Your task to perform on an android device: turn pop-ups off in chrome Image 0: 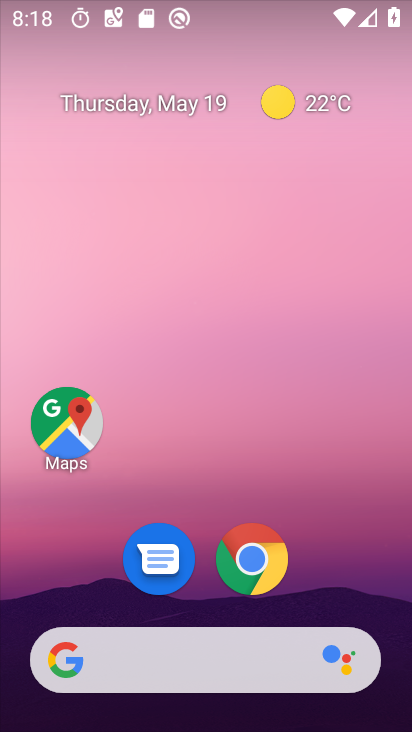
Step 0: click (252, 561)
Your task to perform on an android device: turn pop-ups off in chrome Image 1: 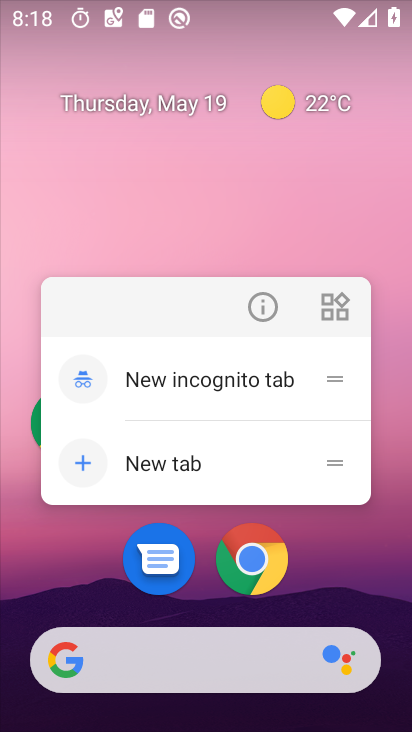
Step 1: click (252, 561)
Your task to perform on an android device: turn pop-ups off in chrome Image 2: 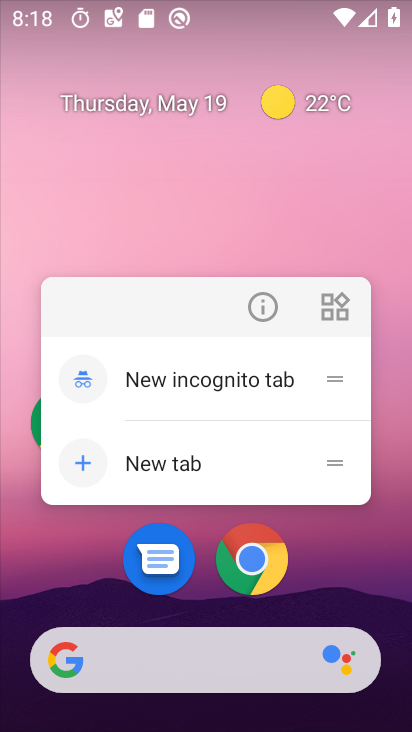
Step 2: click (245, 567)
Your task to perform on an android device: turn pop-ups off in chrome Image 3: 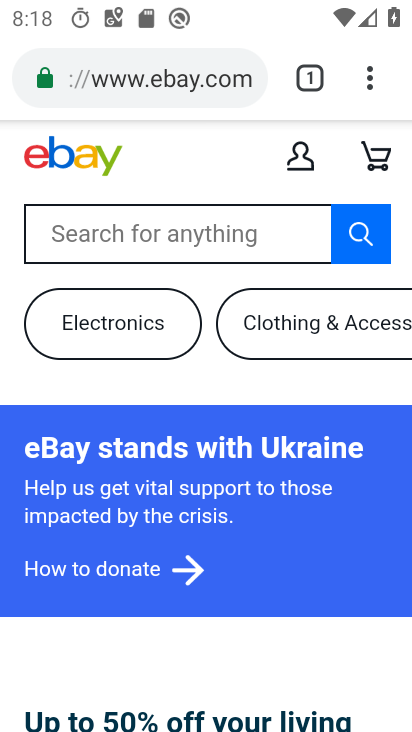
Step 3: click (366, 70)
Your task to perform on an android device: turn pop-ups off in chrome Image 4: 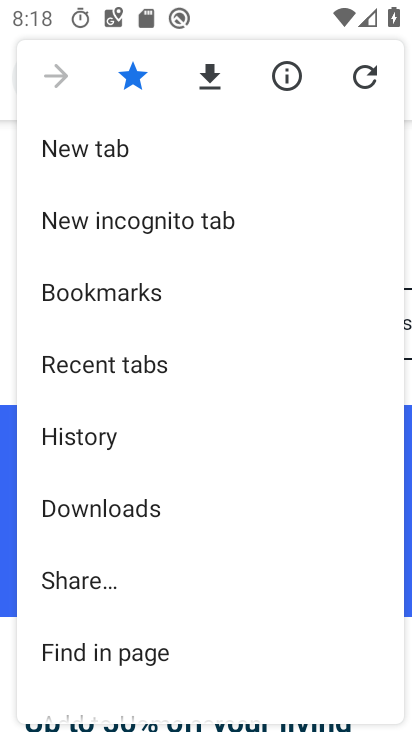
Step 4: drag from (193, 628) to (185, 192)
Your task to perform on an android device: turn pop-ups off in chrome Image 5: 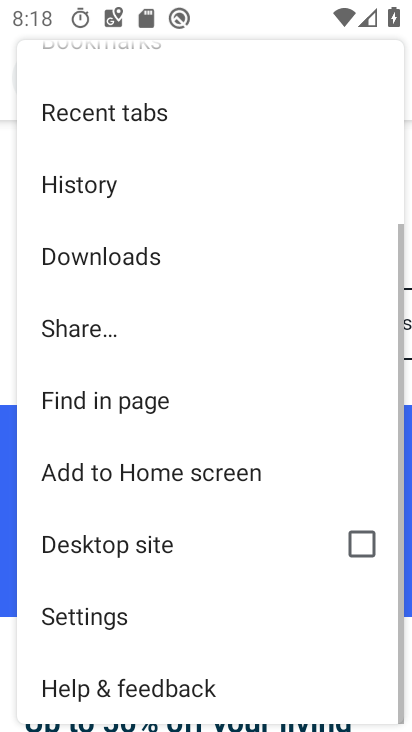
Step 5: click (143, 601)
Your task to perform on an android device: turn pop-ups off in chrome Image 6: 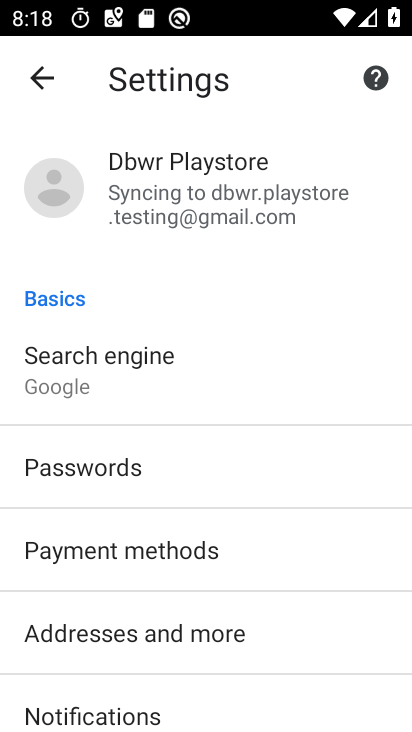
Step 6: drag from (196, 615) to (239, 205)
Your task to perform on an android device: turn pop-ups off in chrome Image 7: 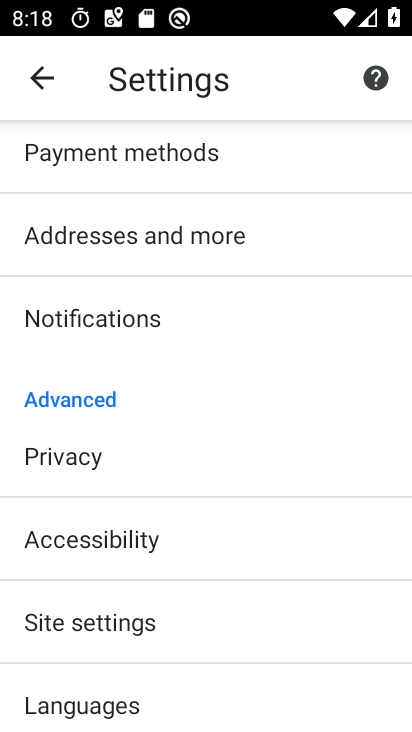
Step 7: drag from (215, 666) to (206, 279)
Your task to perform on an android device: turn pop-ups off in chrome Image 8: 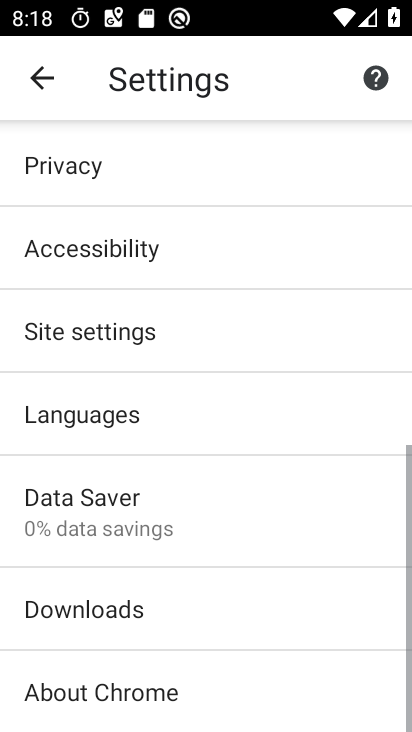
Step 8: click (133, 349)
Your task to perform on an android device: turn pop-ups off in chrome Image 9: 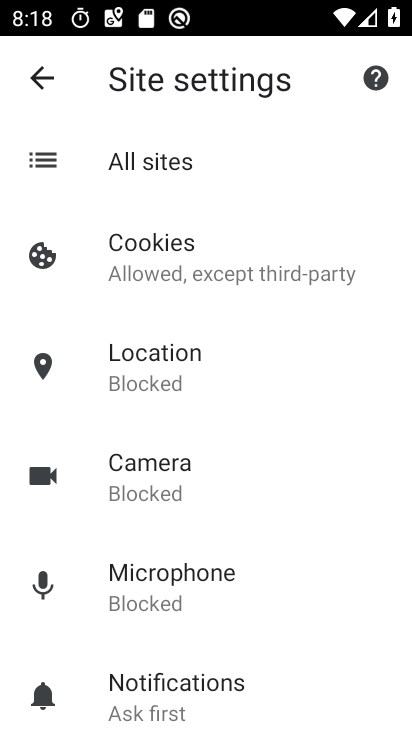
Step 9: drag from (244, 606) to (229, 217)
Your task to perform on an android device: turn pop-ups off in chrome Image 10: 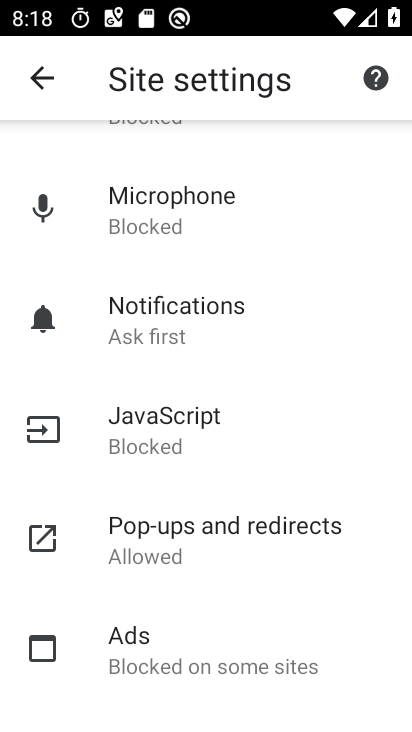
Step 10: click (193, 537)
Your task to perform on an android device: turn pop-ups off in chrome Image 11: 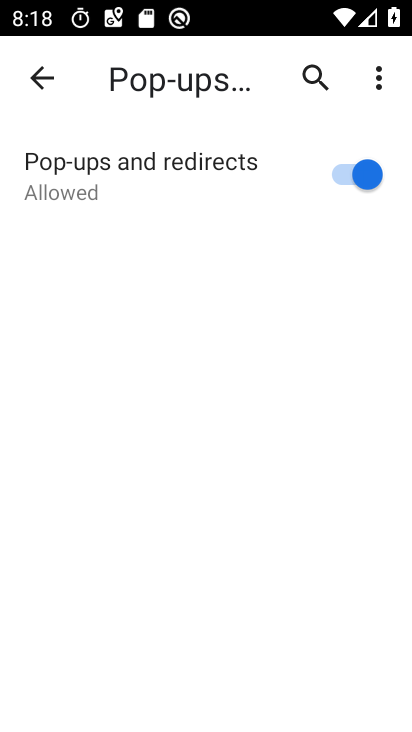
Step 11: click (353, 178)
Your task to perform on an android device: turn pop-ups off in chrome Image 12: 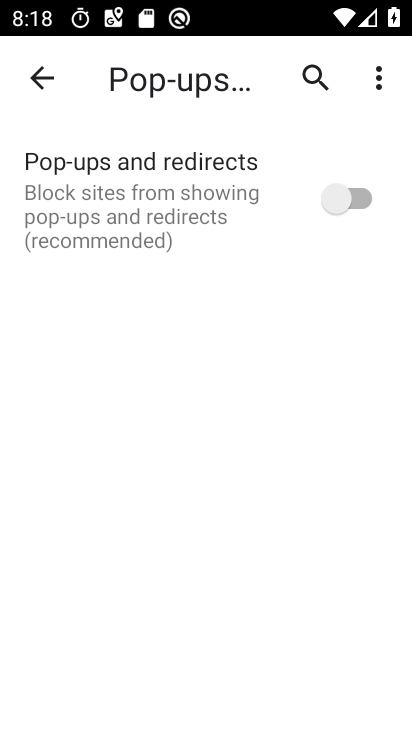
Step 12: task complete